Your task to perform on an android device: Open eBay Image 0: 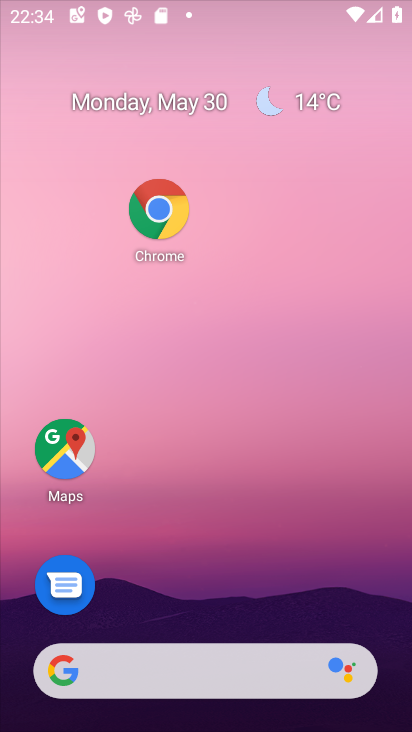
Step 0: click (326, 5)
Your task to perform on an android device: Open eBay Image 1: 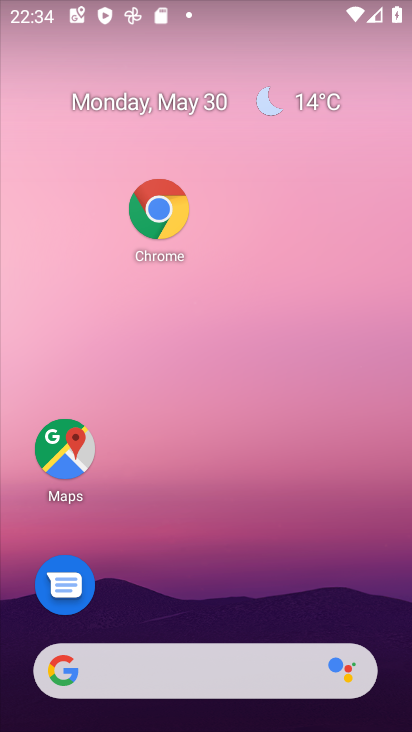
Step 1: drag from (196, 619) to (226, 6)
Your task to perform on an android device: Open eBay Image 2: 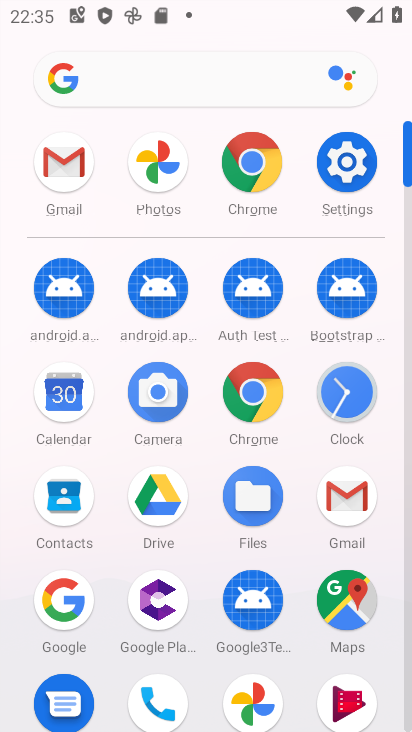
Step 2: click (137, 68)
Your task to perform on an android device: Open eBay Image 3: 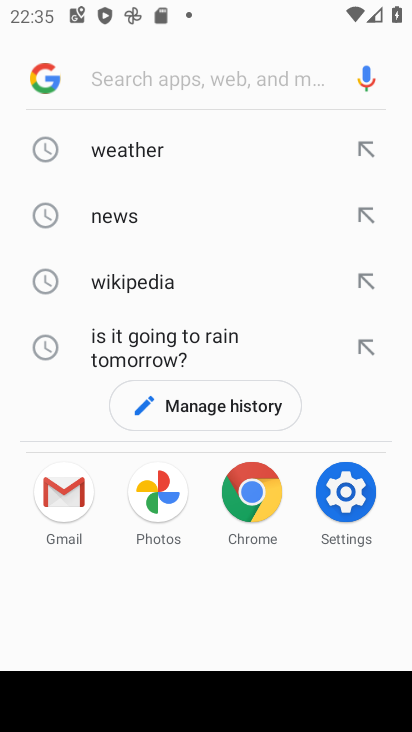
Step 3: type "ebay"
Your task to perform on an android device: Open eBay Image 4: 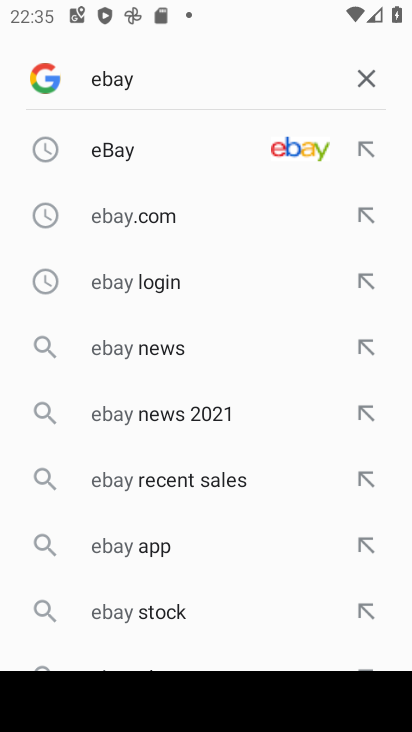
Step 4: click (168, 157)
Your task to perform on an android device: Open eBay Image 5: 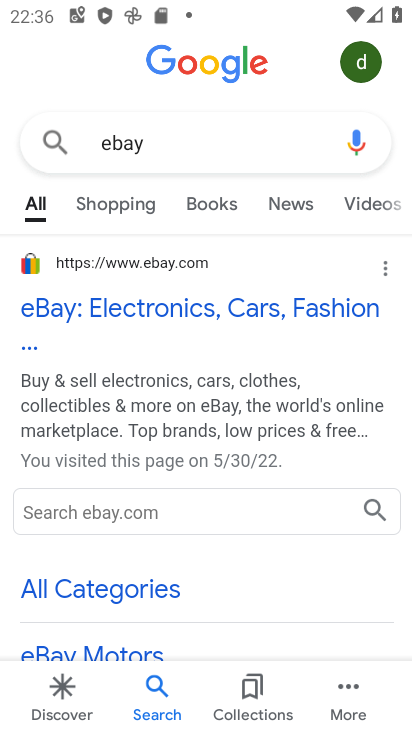
Step 5: click (189, 308)
Your task to perform on an android device: Open eBay Image 6: 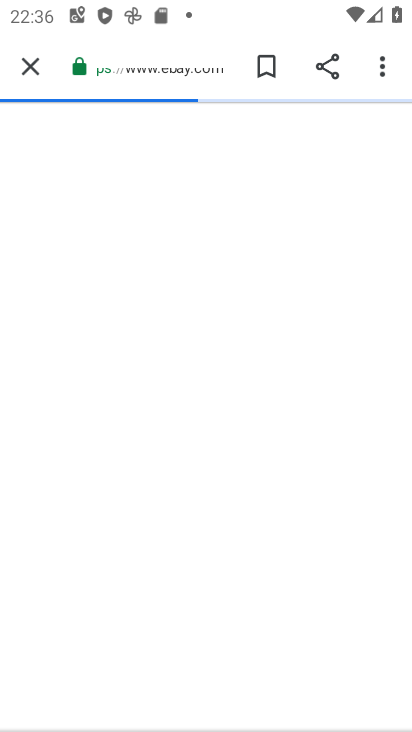
Step 6: task complete